Your task to perform on an android device: Open accessibility settings Image 0: 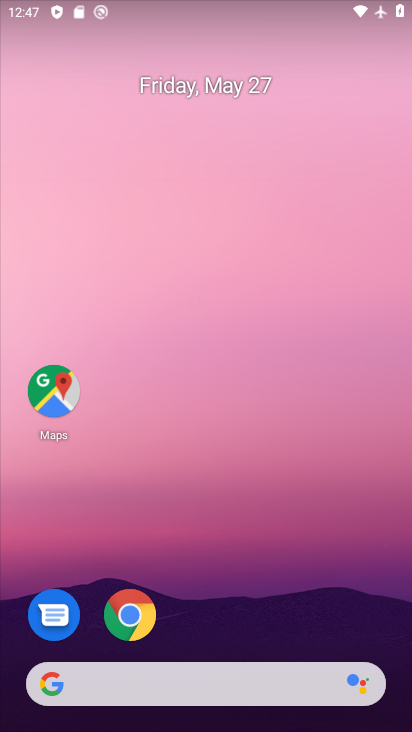
Step 0: press home button
Your task to perform on an android device: Open accessibility settings Image 1: 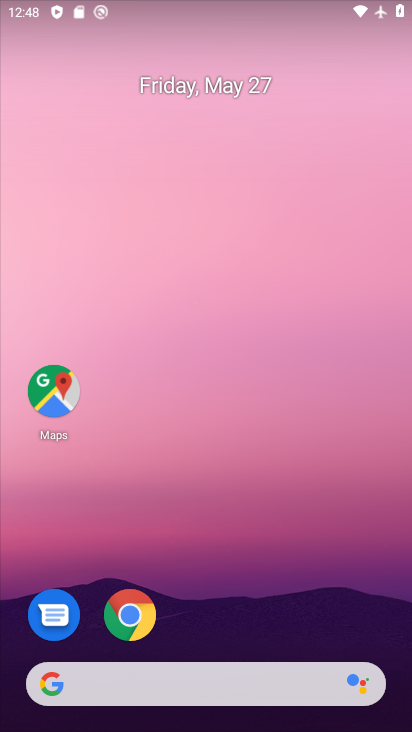
Step 1: drag from (241, 578) to (259, 41)
Your task to perform on an android device: Open accessibility settings Image 2: 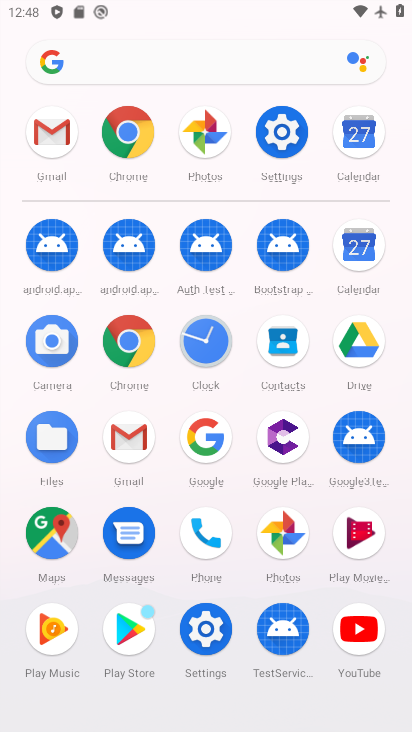
Step 2: click (288, 131)
Your task to perform on an android device: Open accessibility settings Image 3: 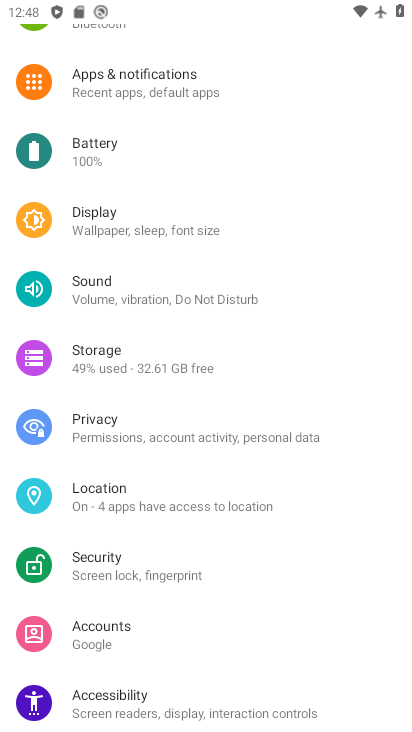
Step 3: click (102, 702)
Your task to perform on an android device: Open accessibility settings Image 4: 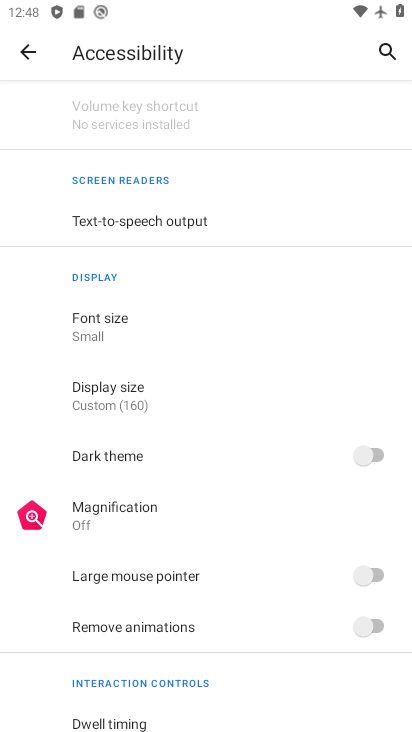
Step 4: task complete